Your task to perform on an android device: open a bookmark in the chrome app Image 0: 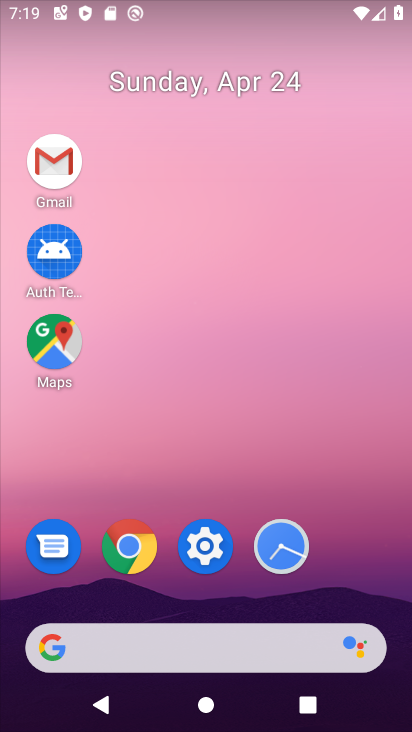
Step 0: click (130, 555)
Your task to perform on an android device: open a bookmark in the chrome app Image 1: 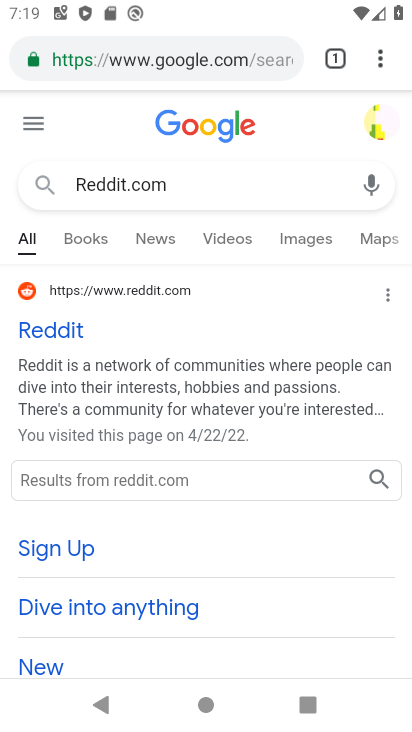
Step 1: click (376, 57)
Your task to perform on an android device: open a bookmark in the chrome app Image 2: 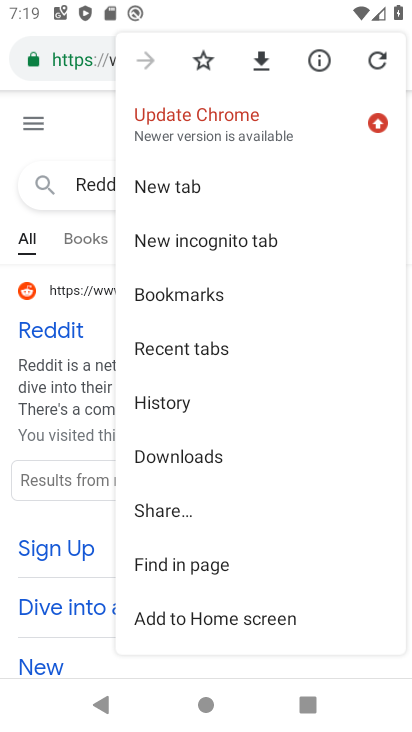
Step 2: click (194, 293)
Your task to perform on an android device: open a bookmark in the chrome app Image 3: 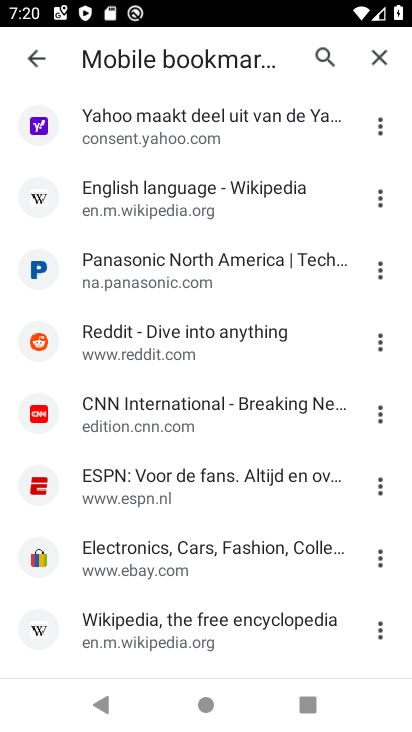
Step 3: task complete